Your task to perform on an android device: Open ESPN.com Image 0: 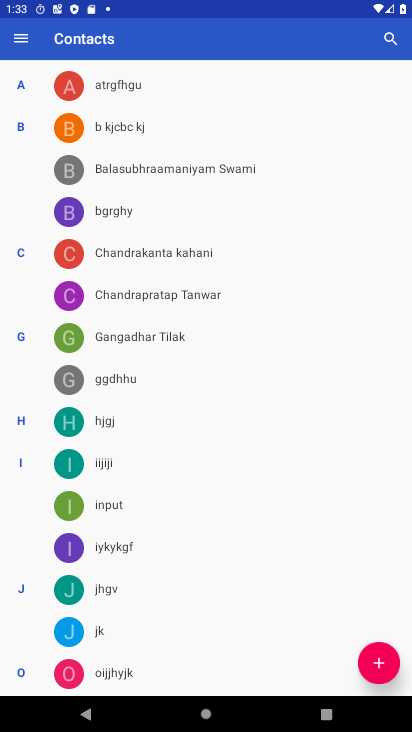
Step 0: press home button
Your task to perform on an android device: Open ESPN.com Image 1: 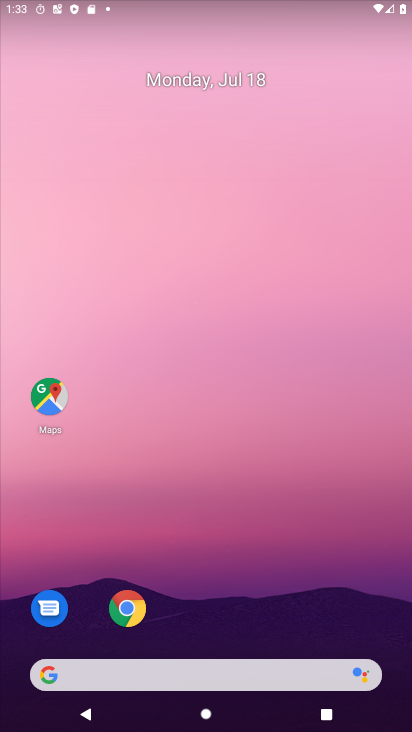
Step 1: click (123, 611)
Your task to perform on an android device: Open ESPN.com Image 2: 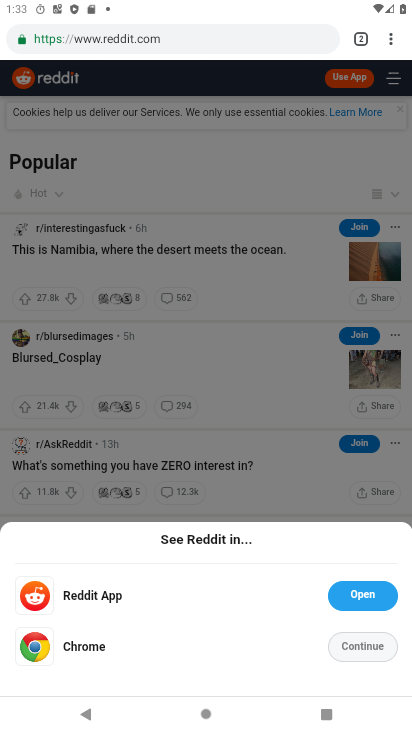
Step 2: click (392, 43)
Your task to perform on an android device: Open ESPN.com Image 3: 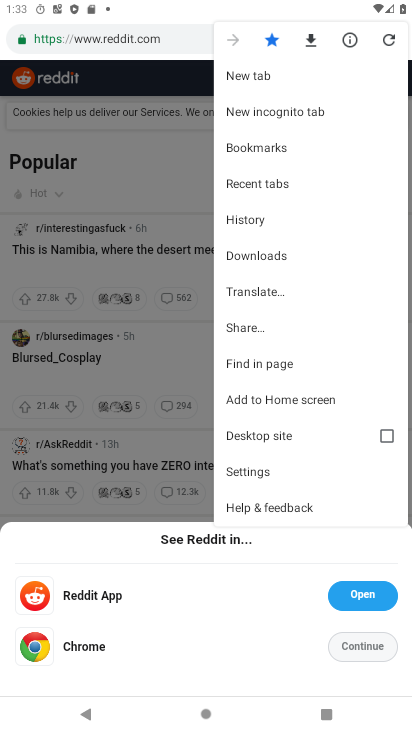
Step 3: click (256, 75)
Your task to perform on an android device: Open ESPN.com Image 4: 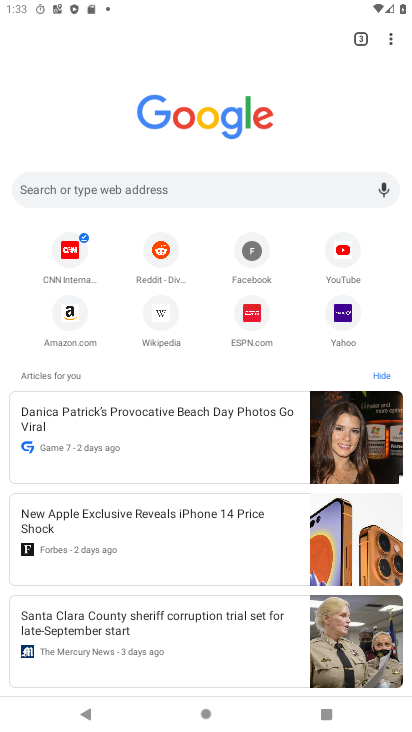
Step 4: click (248, 319)
Your task to perform on an android device: Open ESPN.com Image 5: 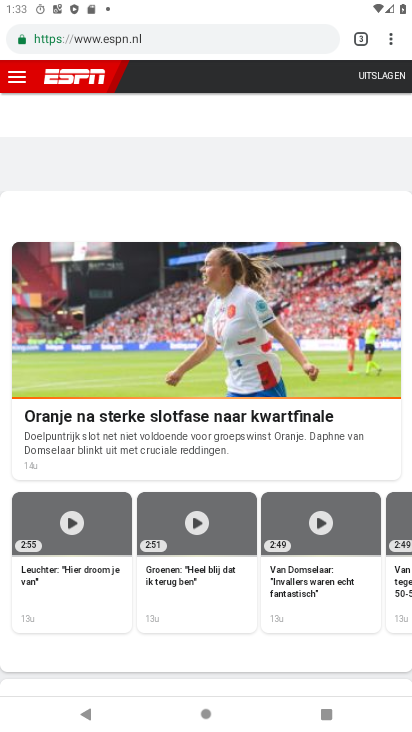
Step 5: task complete